Your task to perform on an android device: turn off priority inbox in the gmail app Image 0: 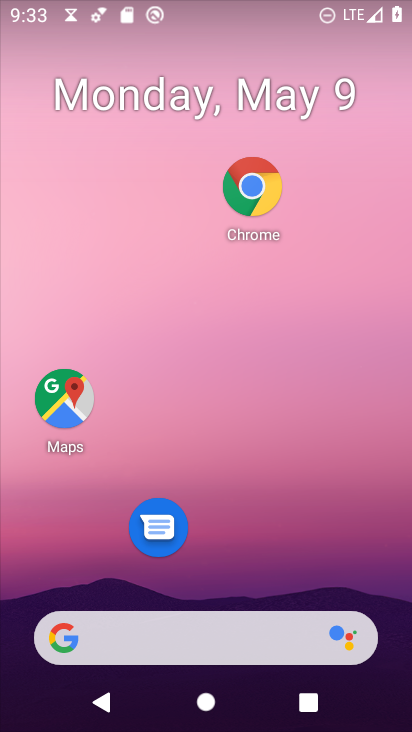
Step 0: drag from (207, 589) to (220, 19)
Your task to perform on an android device: turn off priority inbox in the gmail app Image 1: 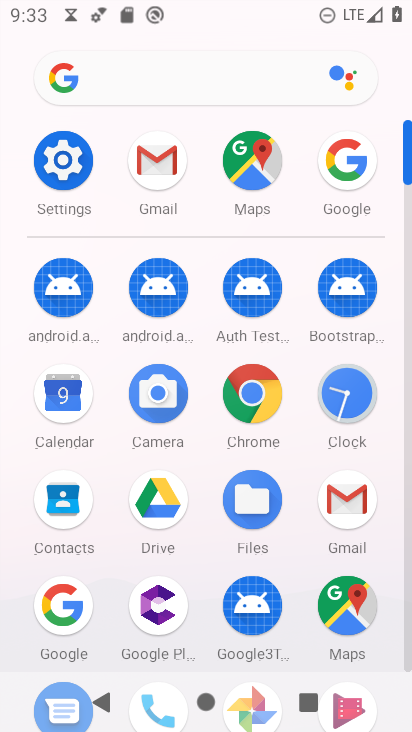
Step 1: click (152, 149)
Your task to perform on an android device: turn off priority inbox in the gmail app Image 2: 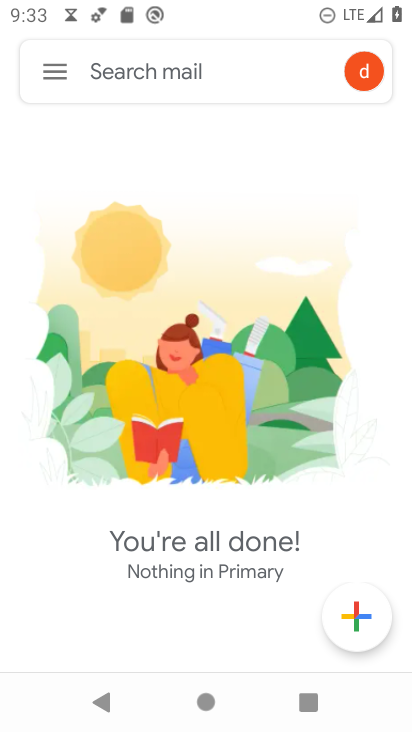
Step 2: click (52, 66)
Your task to perform on an android device: turn off priority inbox in the gmail app Image 3: 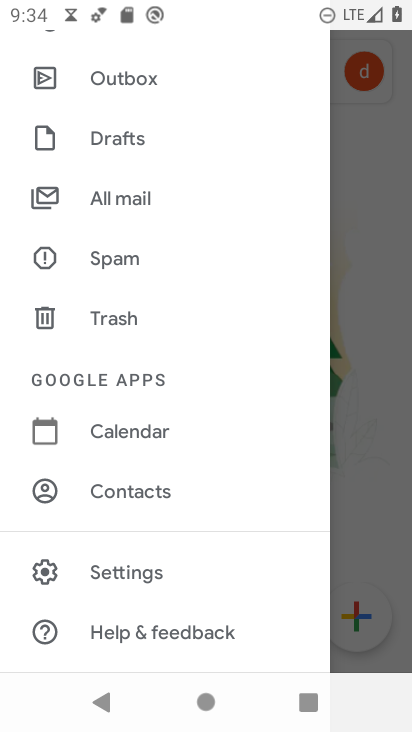
Step 3: click (51, 69)
Your task to perform on an android device: turn off priority inbox in the gmail app Image 4: 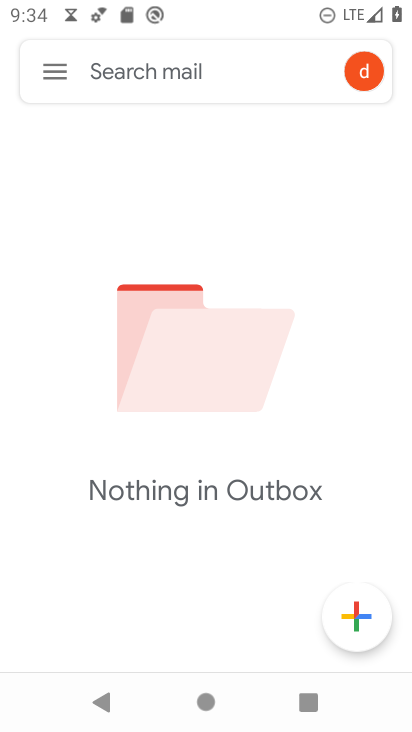
Step 4: click (52, 65)
Your task to perform on an android device: turn off priority inbox in the gmail app Image 5: 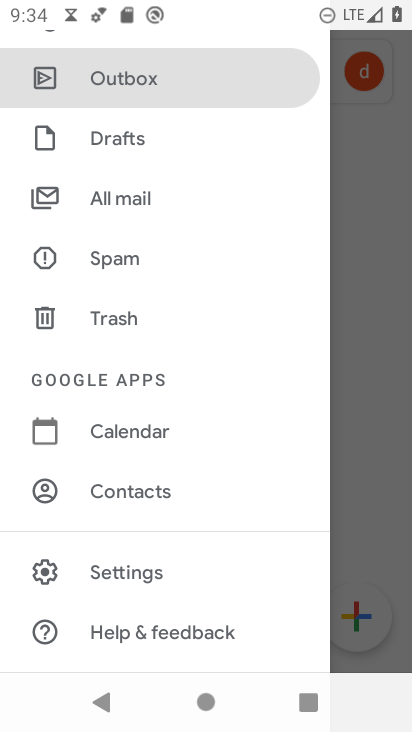
Step 5: click (46, 59)
Your task to perform on an android device: turn off priority inbox in the gmail app Image 6: 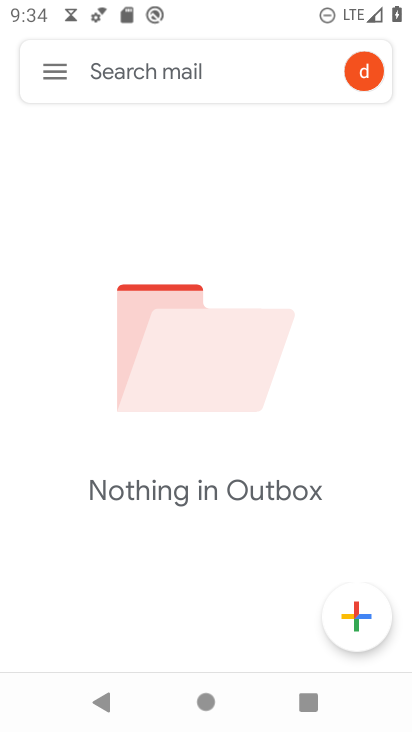
Step 6: click (209, 27)
Your task to perform on an android device: turn off priority inbox in the gmail app Image 7: 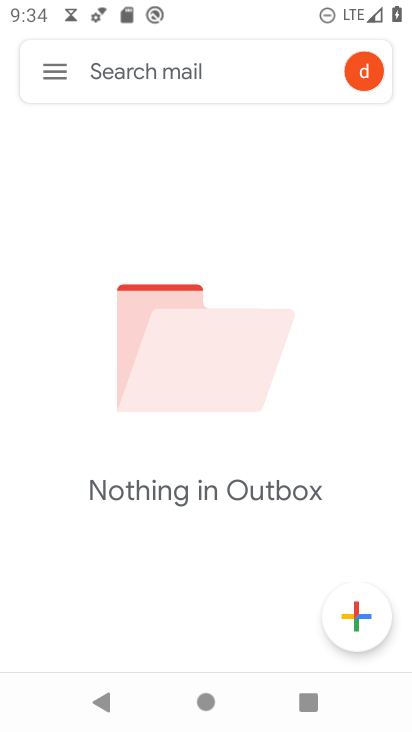
Step 7: click (169, 574)
Your task to perform on an android device: turn off priority inbox in the gmail app Image 8: 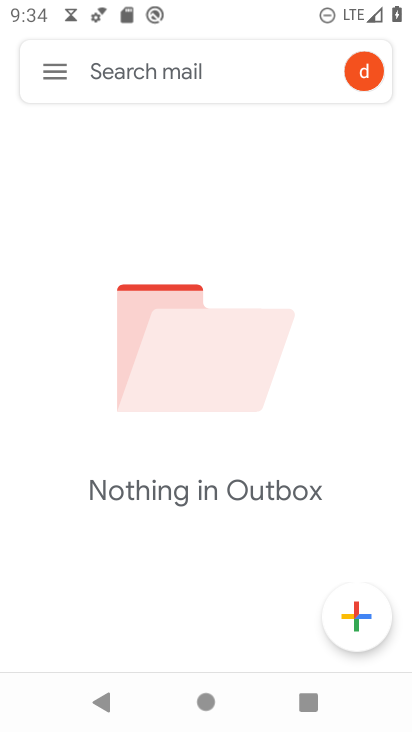
Step 8: click (67, 76)
Your task to perform on an android device: turn off priority inbox in the gmail app Image 9: 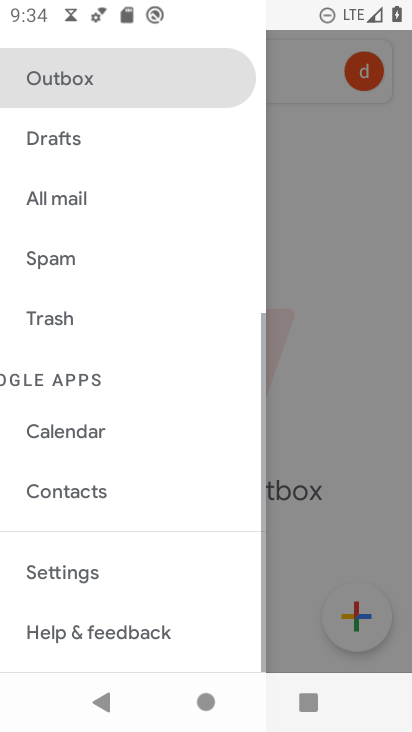
Step 9: click (54, 56)
Your task to perform on an android device: turn off priority inbox in the gmail app Image 10: 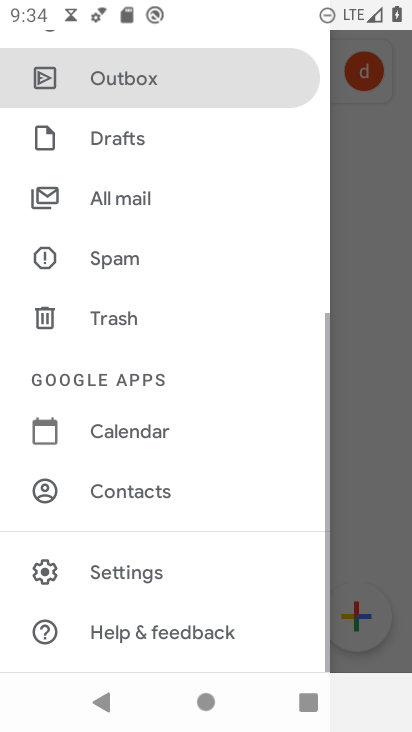
Step 10: click (83, 572)
Your task to perform on an android device: turn off priority inbox in the gmail app Image 11: 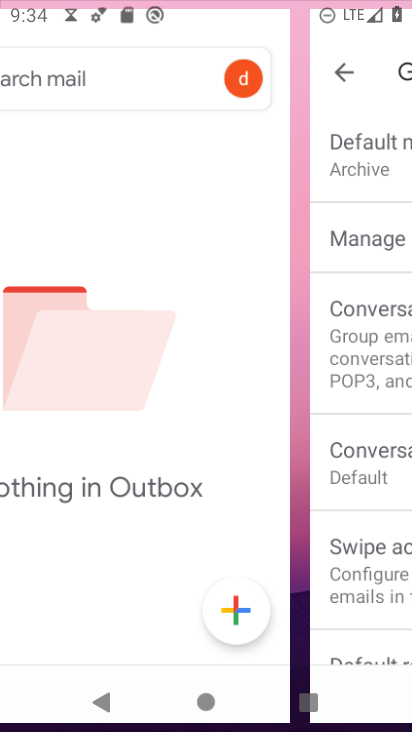
Step 11: click (55, 70)
Your task to perform on an android device: turn off priority inbox in the gmail app Image 12: 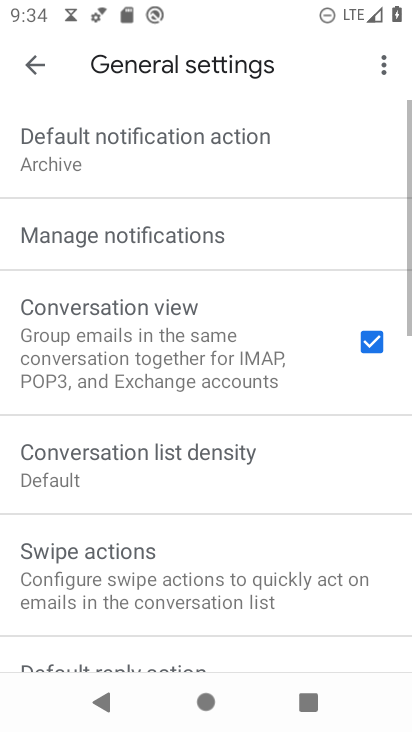
Step 12: click (55, 84)
Your task to perform on an android device: turn off priority inbox in the gmail app Image 13: 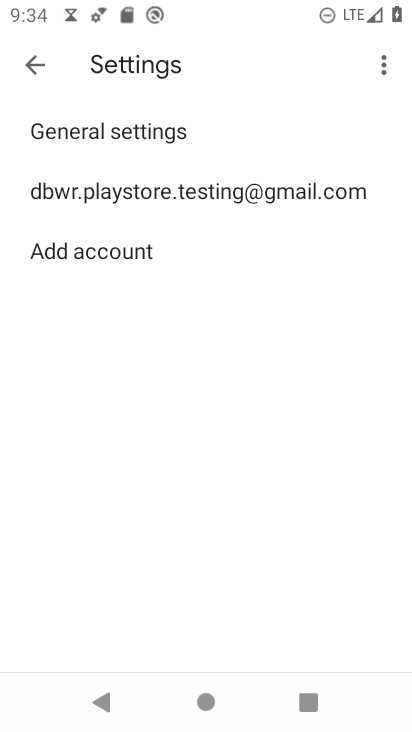
Step 13: click (152, 571)
Your task to perform on an android device: turn off priority inbox in the gmail app Image 14: 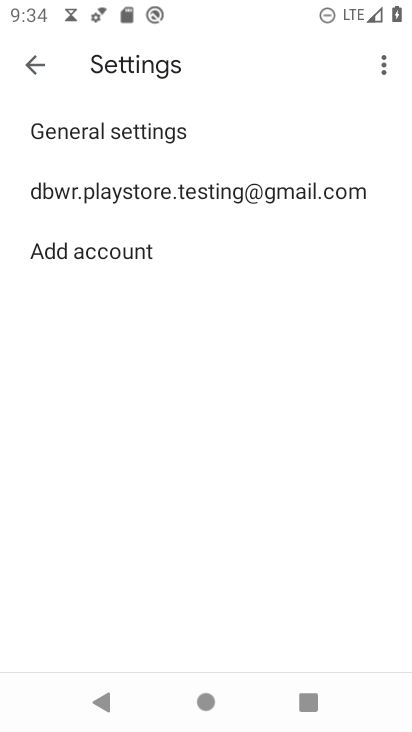
Step 14: click (226, 193)
Your task to perform on an android device: turn off priority inbox in the gmail app Image 15: 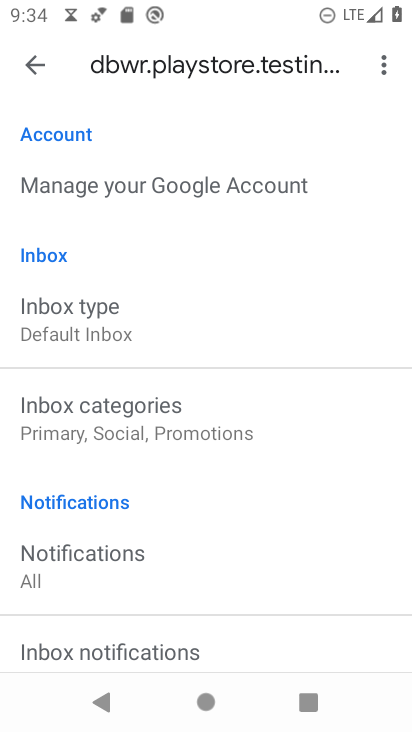
Step 15: click (151, 318)
Your task to perform on an android device: turn off priority inbox in the gmail app Image 16: 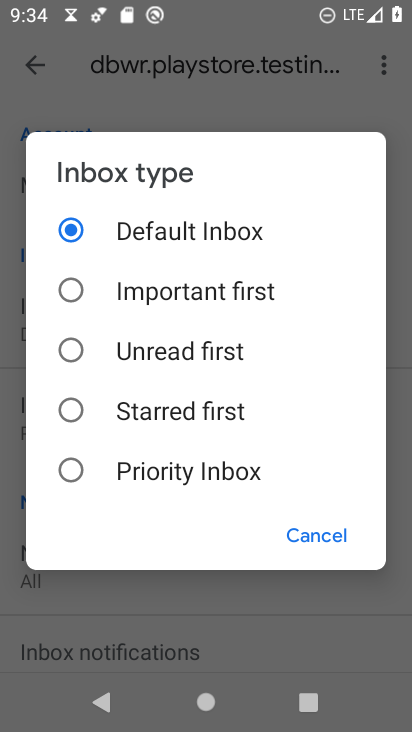
Step 16: click (79, 280)
Your task to perform on an android device: turn off priority inbox in the gmail app Image 17: 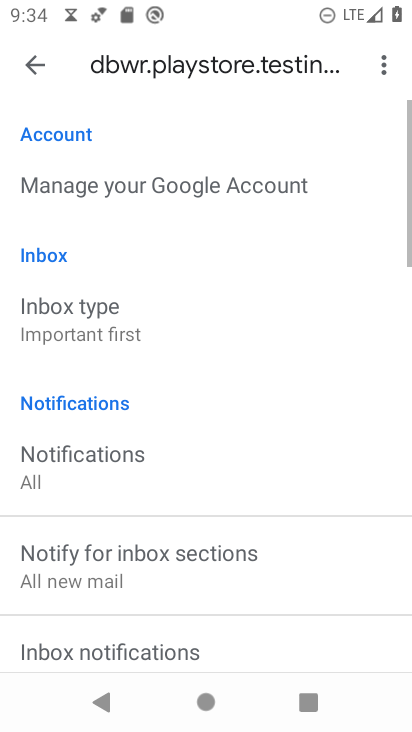
Step 17: task complete